Your task to perform on an android device: Go to Wikipedia Image 0: 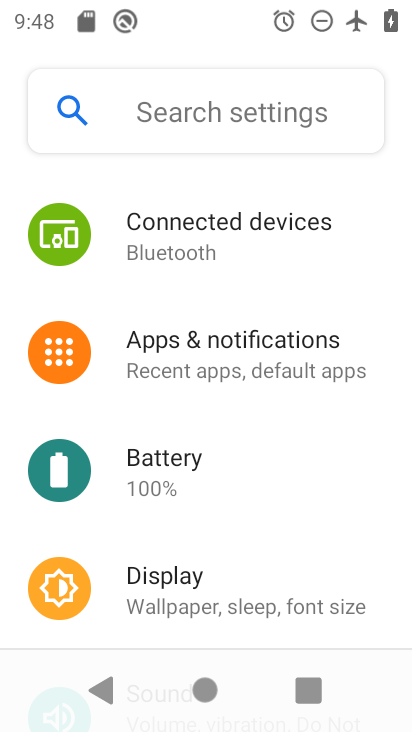
Step 0: press home button
Your task to perform on an android device: Go to Wikipedia Image 1: 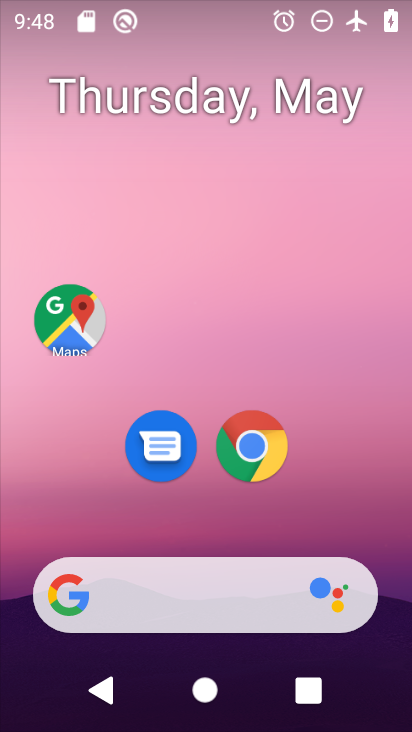
Step 1: drag from (365, 511) to (353, 82)
Your task to perform on an android device: Go to Wikipedia Image 2: 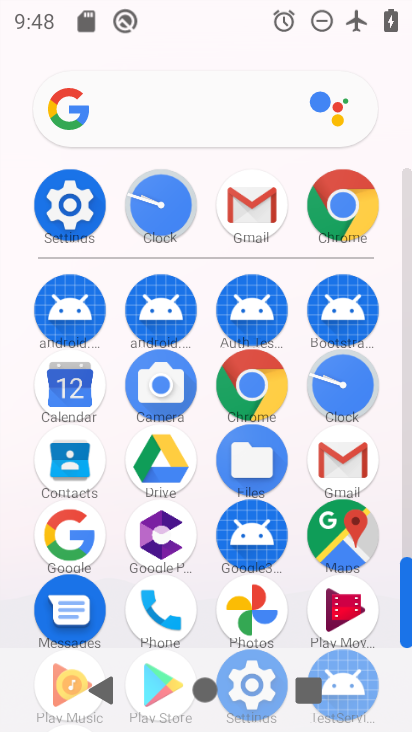
Step 2: click (272, 375)
Your task to perform on an android device: Go to Wikipedia Image 3: 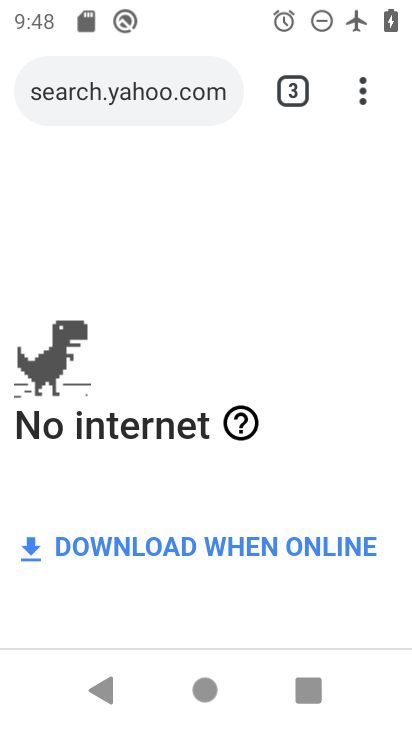
Step 3: click (171, 97)
Your task to perform on an android device: Go to Wikipedia Image 4: 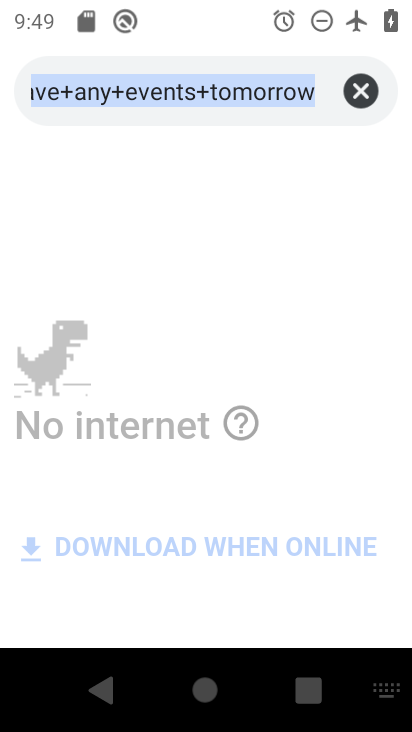
Step 4: click (346, 105)
Your task to perform on an android device: Go to Wikipedia Image 5: 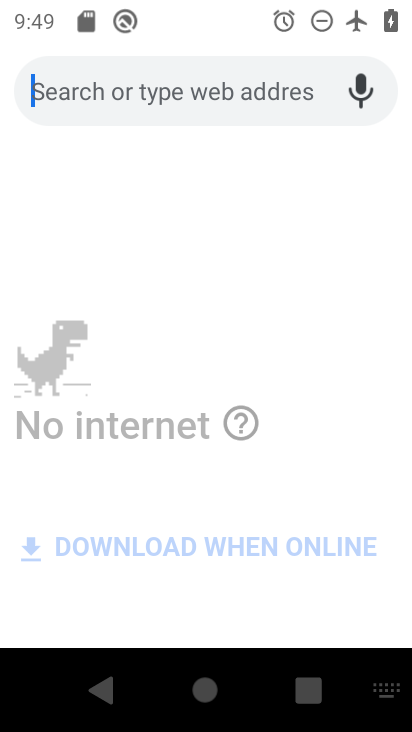
Step 5: type "wikipedia"
Your task to perform on an android device: Go to Wikipedia Image 6: 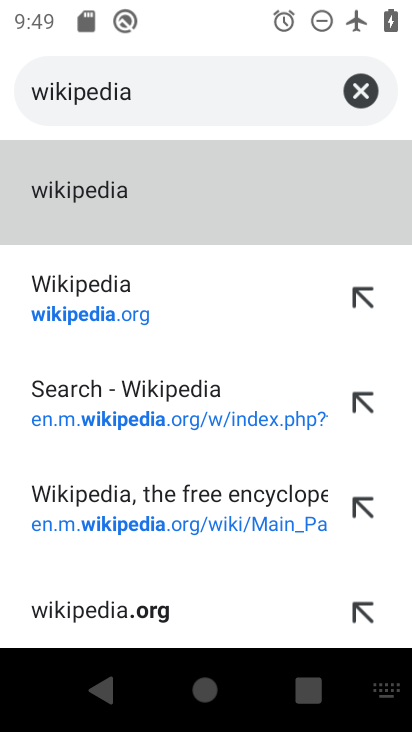
Step 6: click (90, 191)
Your task to perform on an android device: Go to Wikipedia Image 7: 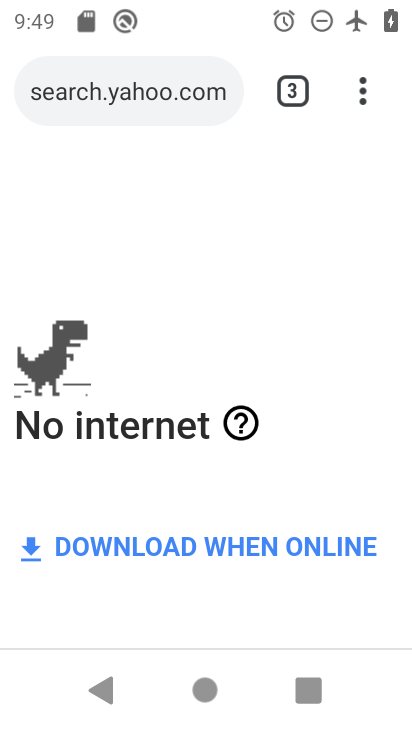
Step 7: task complete